Your task to perform on an android device: Open settings Image 0: 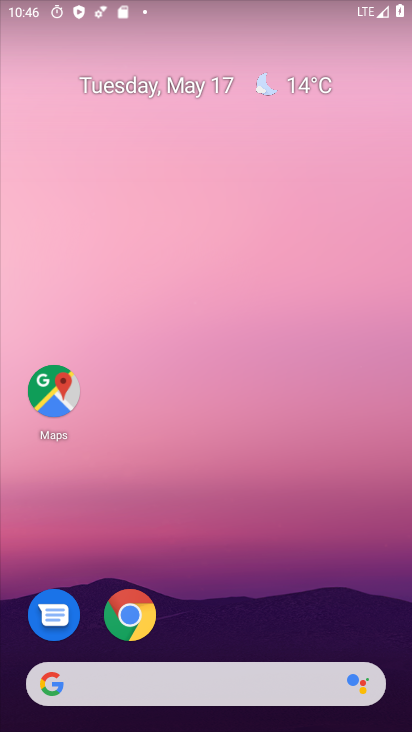
Step 0: press home button
Your task to perform on an android device: Open settings Image 1: 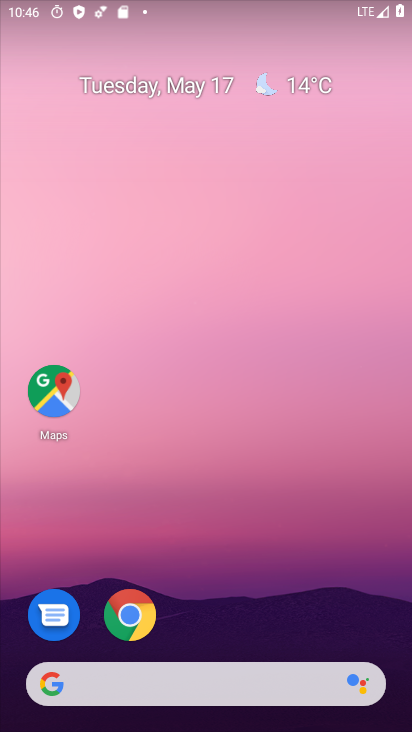
Step 1: click (139, 618)
Your task to perform on an android device: Open settings Image 2: 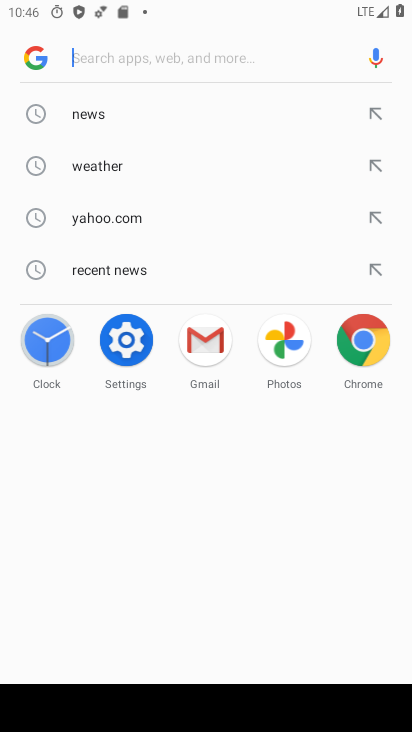
Step 2: press home button
Your task to perform on an android device: Open settings Image 3: 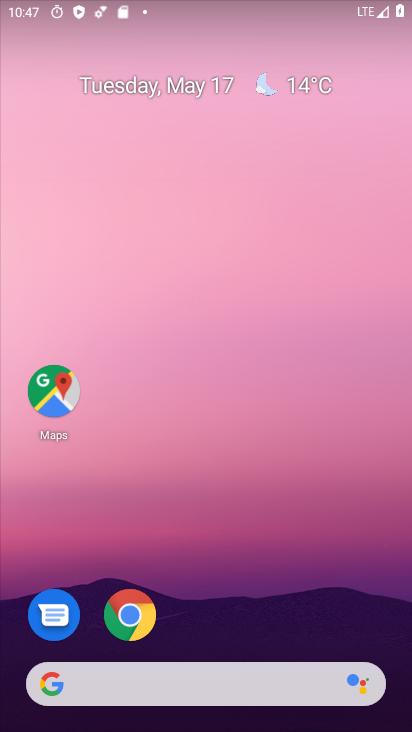
Step 3: drag from (188, 677) to (331, 223)
Your task to perform on an android device: Open settings Image 4: 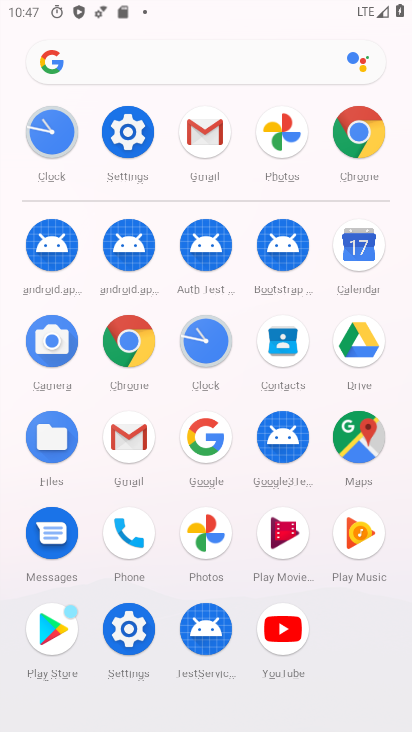
Step 4: click (136, 146)
Your task to perform on an android device: Open settings Image 5: 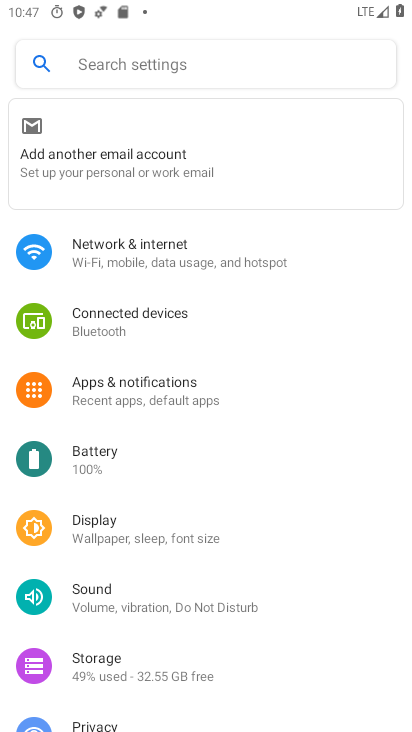
Step 5: task complete